Your task to perform on an android device: check battery use Image 0: 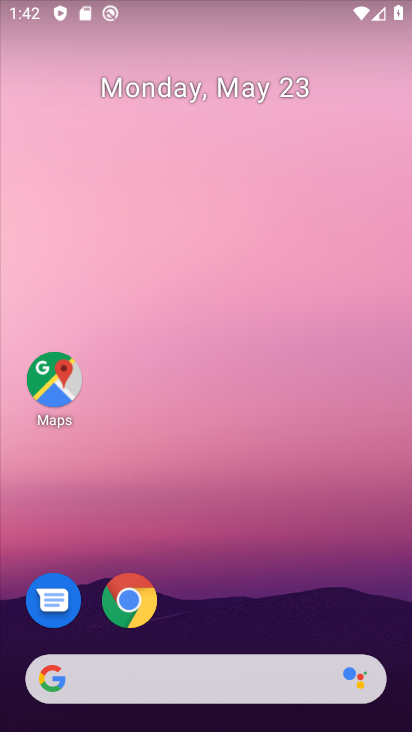
Step 0: drag from (219, 631) to (199, 169)
Your task to perform on an android device: check battery use Image 1: 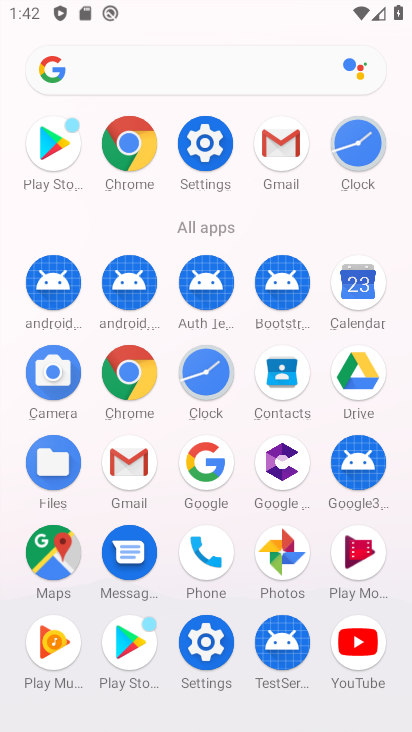
Step 1: click (193, 134)
Your task to perform on an android device: check battery use Image 2: 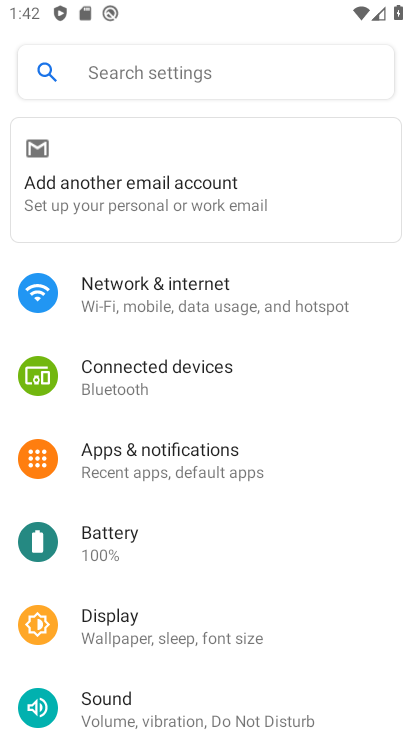
Step 2: click (193, 534)
Your task to perform on an android device: check battery use Image 3: 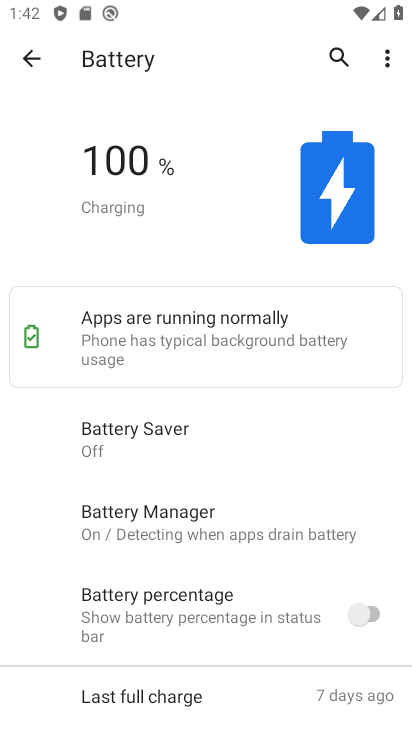
Step 3: task complete